Your task to perform on an android device: open device folders in google photos Image 0: 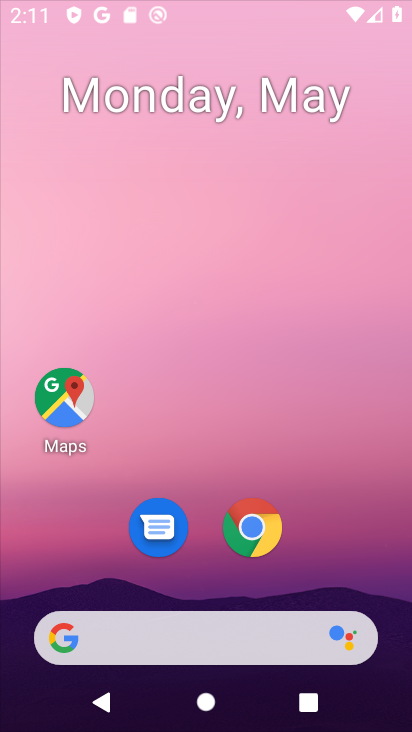
Step 0: click (256, 535)
Your task to perform on an android device: open device folders in google photos Image 1: 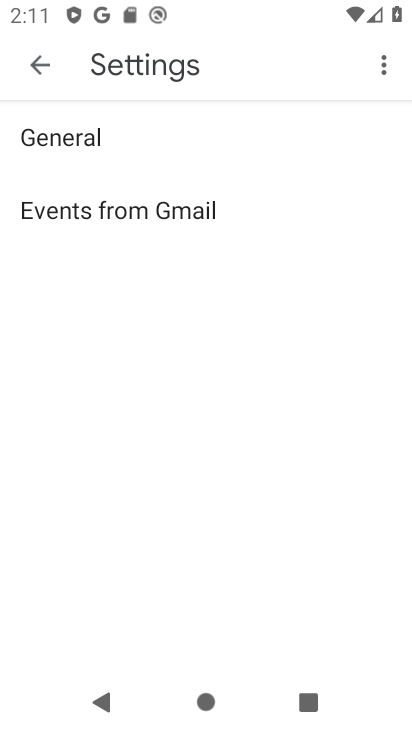
Step 1: click (36, 67)
Your task to perform on an android device: open device folders in google photos Image 2: 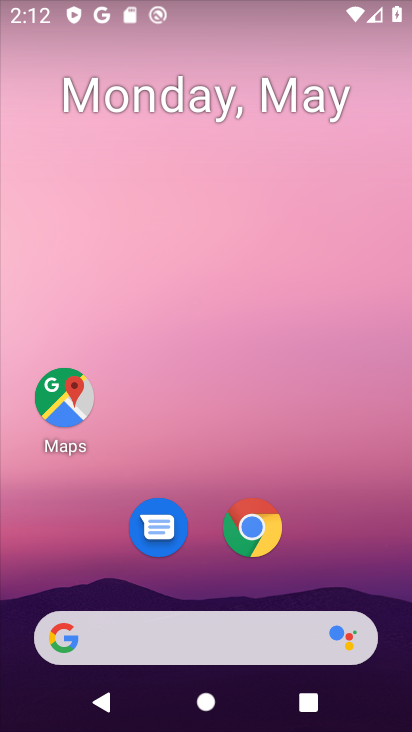
Step 2: drag from (225, 506) to (252, 290)
Your task to perform on an android device: open device folders in google photos Image 3: 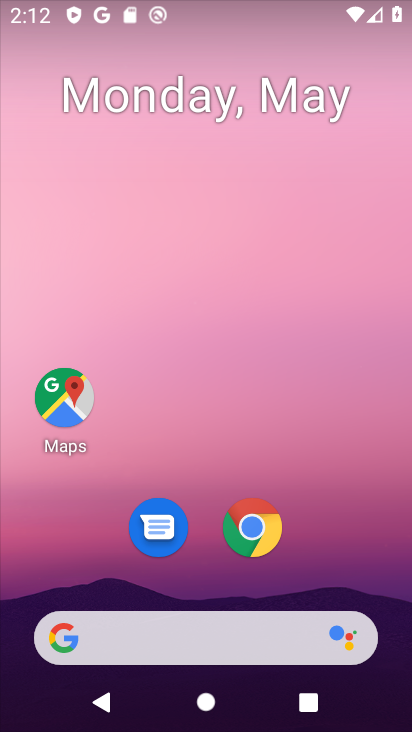
Step 3: drag from (263, 529) to (269, 253)
Your task to perform on an android device: open device folders in google photos Image 4: 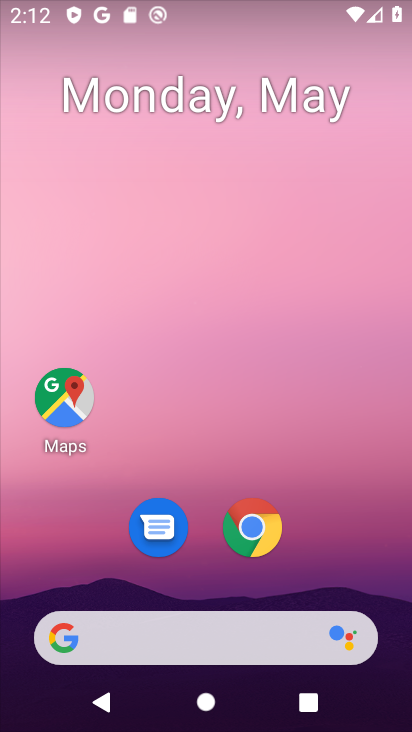
Step 4: drag from (221, 585) to (225, 339)
Your task to perform on an android device: open device folders in google photos Image 5: 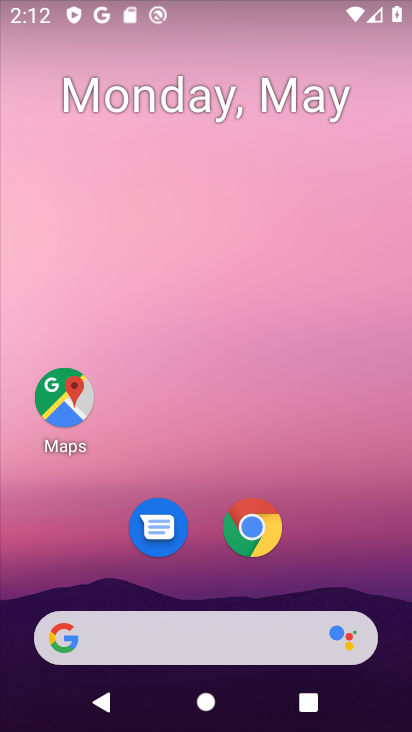
Step 5: drag from (189, 616) to (225, 303)
Your task to perform on an android device: open device folders in google photos Image 6: 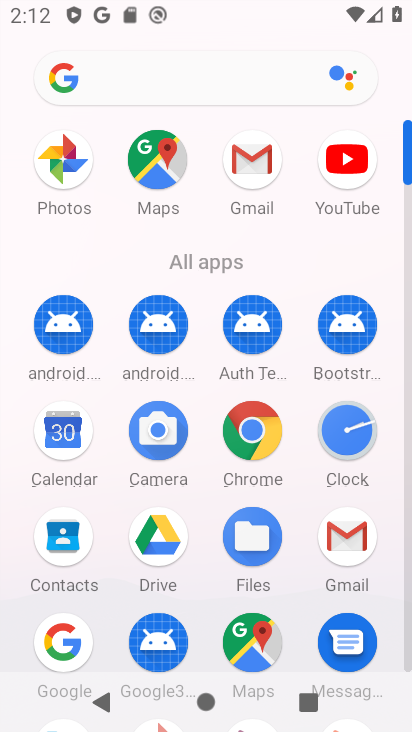
Step 6: click (61, 164)
Your task to perform on an android device: open device folders in google photos Image 7: 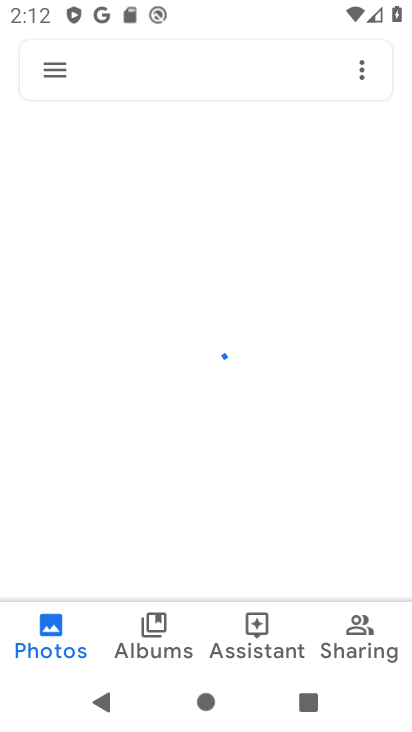
Step 7: click (48, 75)
Your task to perform on an android device: open device folders in google photos Image 8: 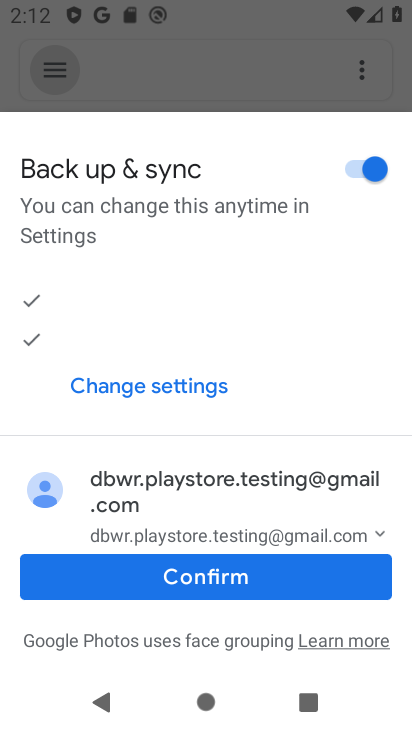
Step 8: click (183, 579)
Your task to perform on an android device: open device folders in google photos Image 9: 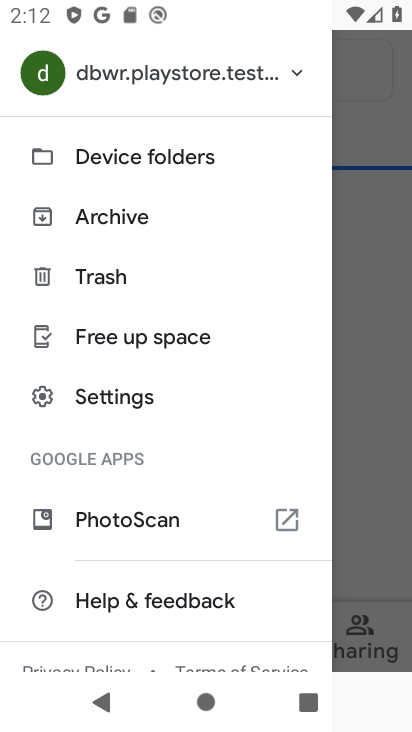
Step 9: click (151, 171)
Your task to perform on an android device: open device folders in google photos Image 10: 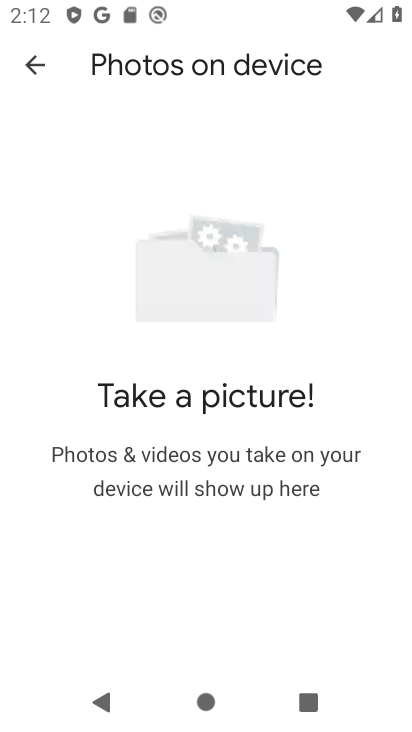
Step 10: task complete